Your task to perform on an android device: stop showing notifications on the lock screen Image 0: 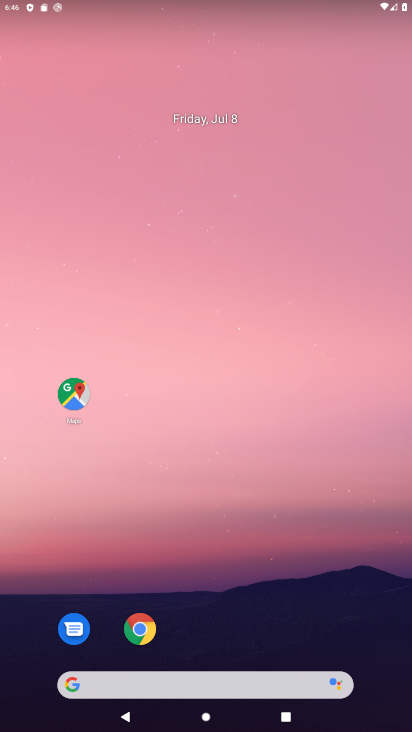
Step 0: drag from (277, 605) to (186, 101)
Your task to perform on an android device: stop showing notifications on the lock screen Image 1: 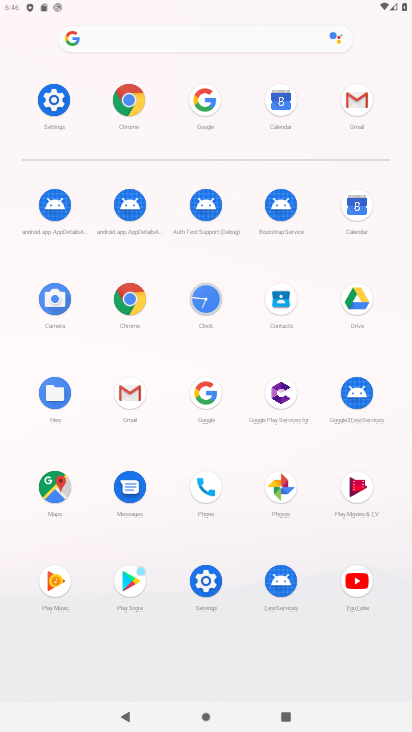
Step 1: click (73, 109)
Your task to perform on an android device: stop showing notifications on the lock screen Image 2: 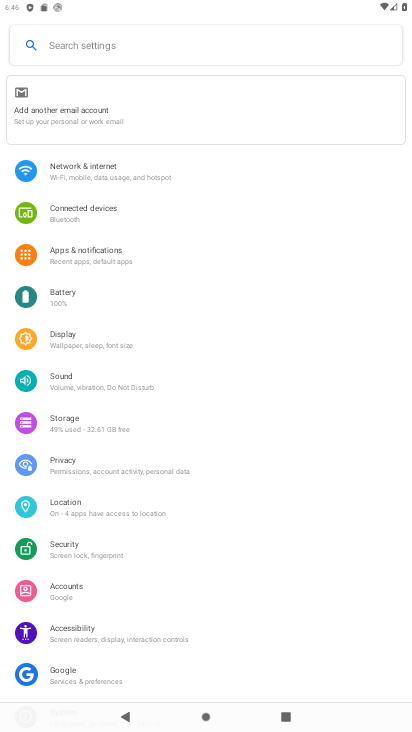
Step 2: click (49, 260)
Your task to perform on an android device: stop showing notifications on the lock screen Image 3: 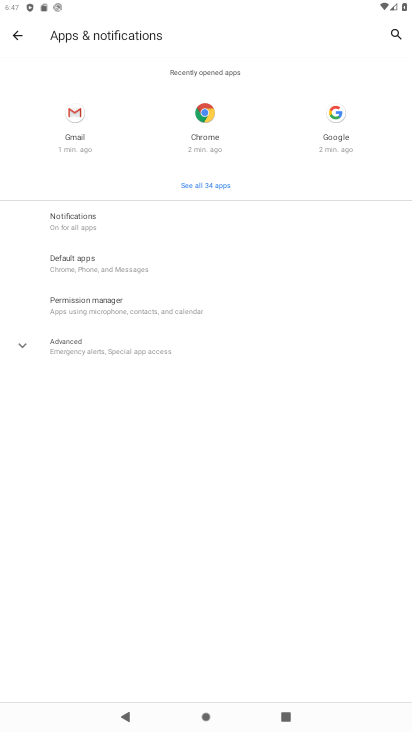
Step 3: click (77, 355)
Your task to perform on an android device: stop showing notifications on the lock screen Image 4: 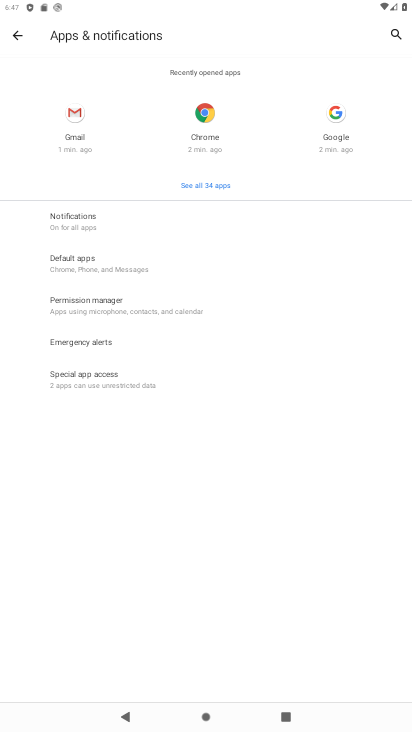
Step 4: click (97, 238)
Your task to perform on an android device: stop showing notifications on the lock screen Image 5: 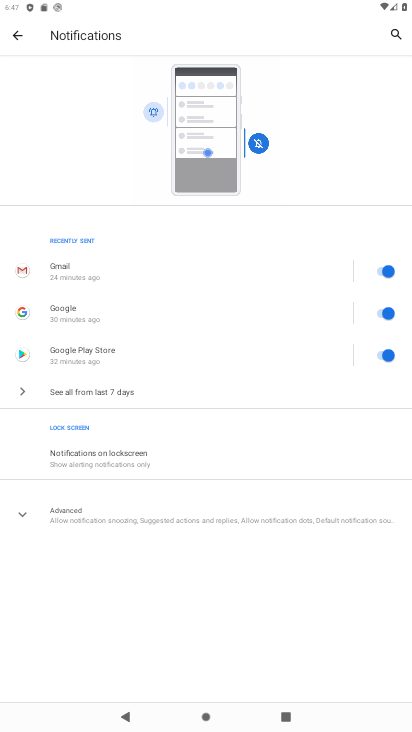
Step 5: click (84, 462)
Your task to perform on an android device: stop showing notifications on the lock screen Image 6: 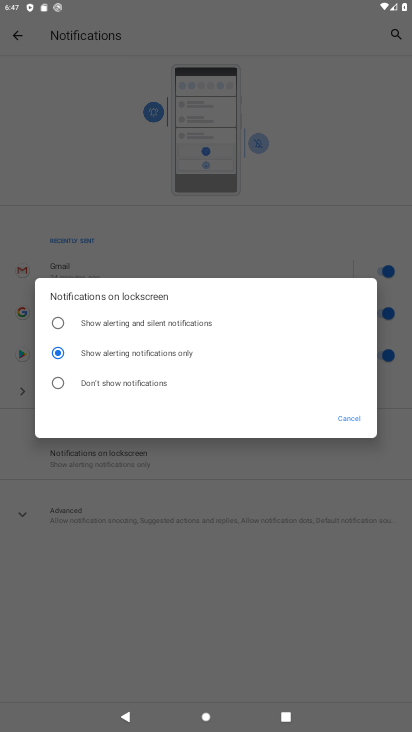
Step 6: click (82, 385)
Your task to perform on an android device: stop showing notifications on the lock screen Image 7: 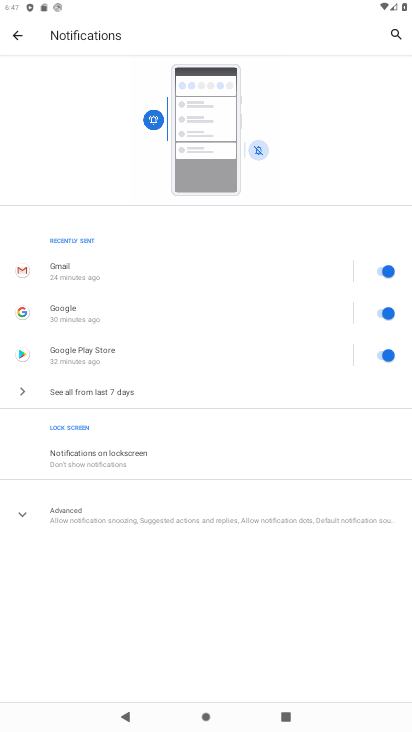
Step 7: task complete